Your task to perform on an android device: Go to Yahoo.com Image 0: 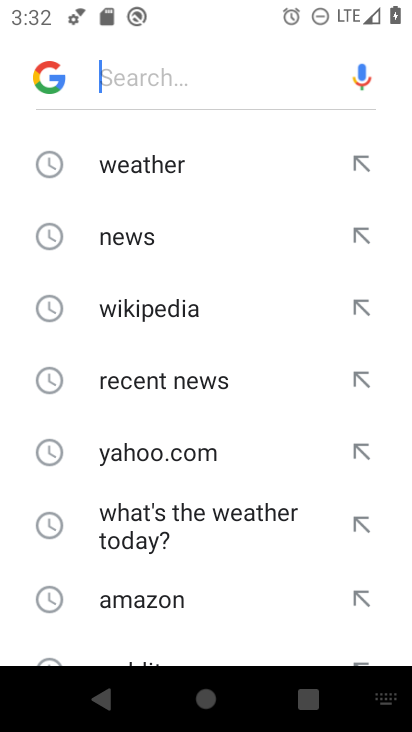
Step 0: press home button
Your task to perform on an android device: Go to Yahoo.com Image 1: 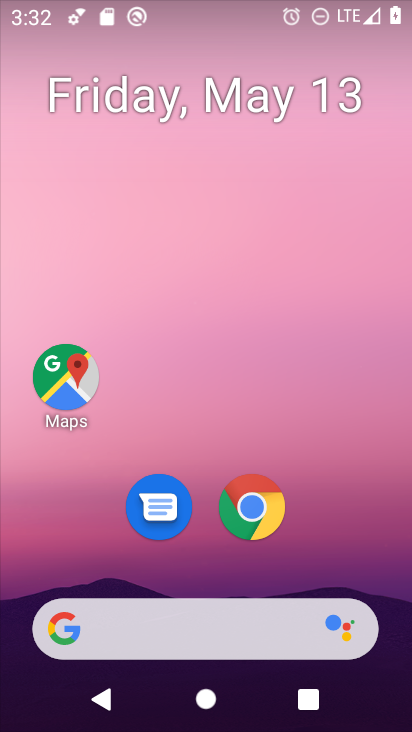
Step 1: drag from (326, 465) to (283, 195)
Your task to perform on an android device: Go to Yahoo.com Image 2: 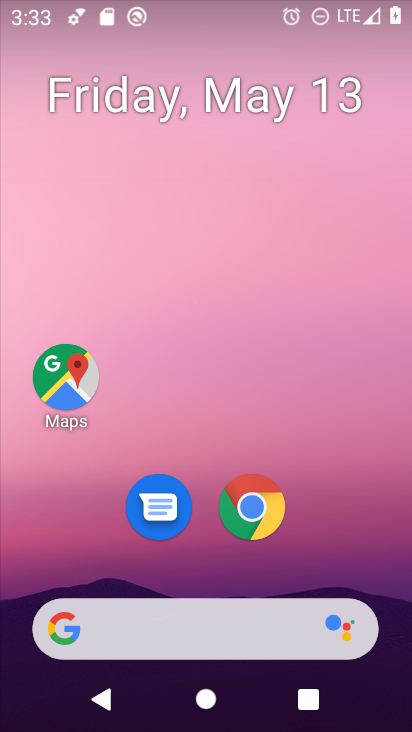
Step 2: click (288, 190)
Your task to perform on an android device: Go to Yahoo.com Image 3: 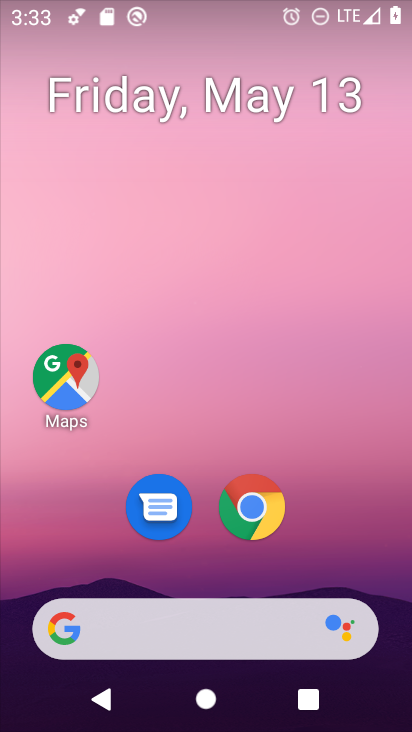
Step 3: click (233, 635)
Your task to perform on an android device: Go to Yahoo.com Image 4: 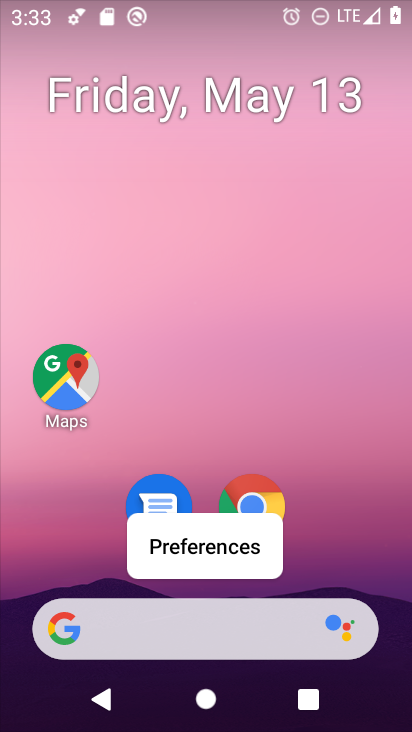
Step 4: click (233, 635)
Your task to perform on an android device: Go to Yahoo.com Image 5: 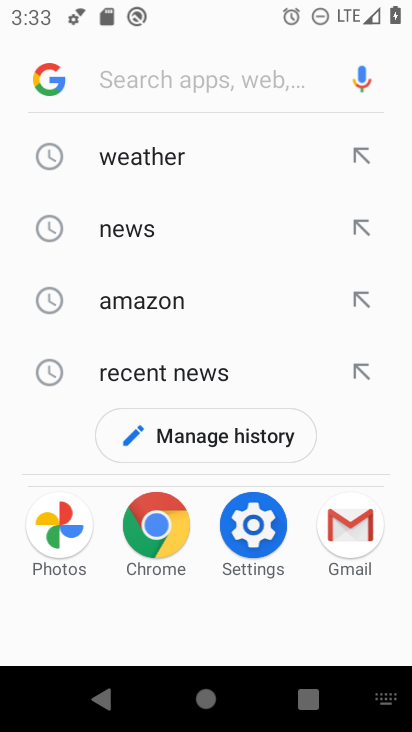
Step 5: click (275, 78)
Your task to perform on an android device: Go to Yahoo.com Image 6: 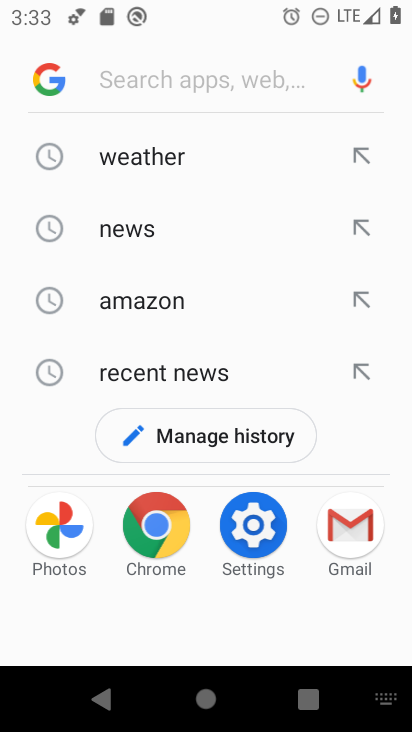
Step 6: click (145, 530)
Your task to perform on an android device: Go to Yahoo.com Image 7: 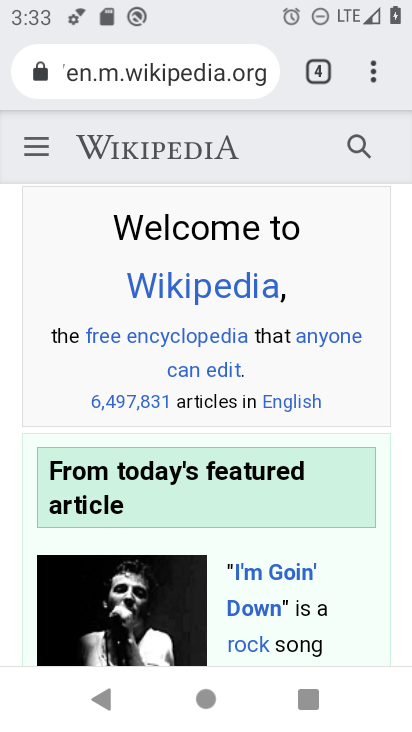
Step 7: click (326, 69)
Your task to perform on an android device: Go to Yahoo.com Image 8: 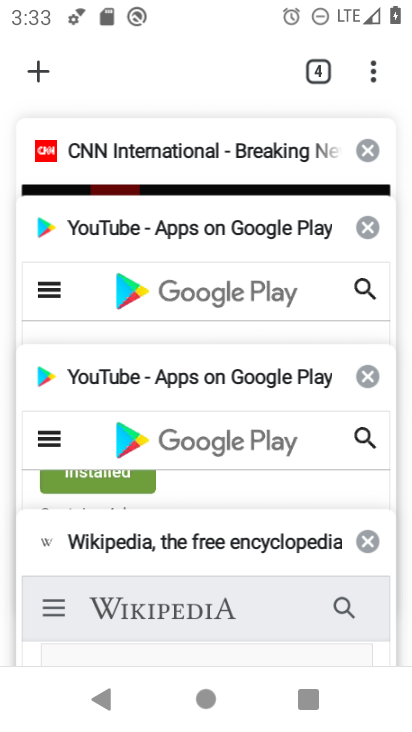
Step 8: drag from (161, 226) to (161, 523)
Your task to perform on an android device: Go to Yahoo.com Image 9: 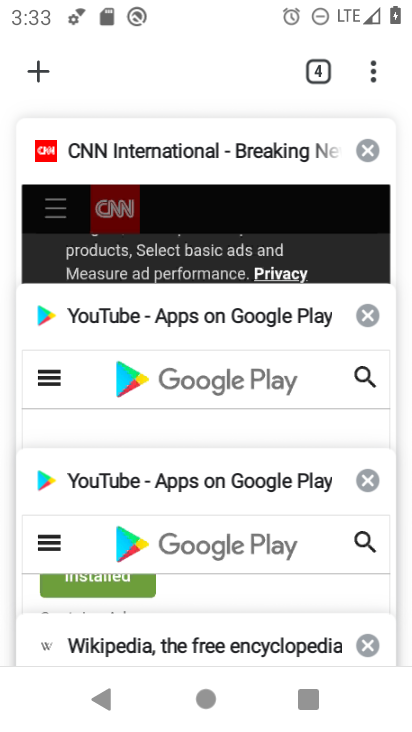
Step 9: drag from (229, 210) to (256, 536)
Your task to perform on an android device: Go to Yahoo.com Image 10: 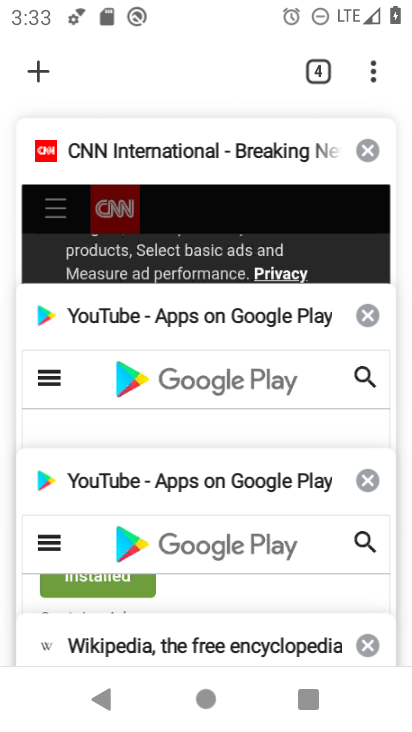
Step 10: drag from (263, 497) to (308, 78)
Your task to perform on an android device: Go to Yahoo.com Image 11: 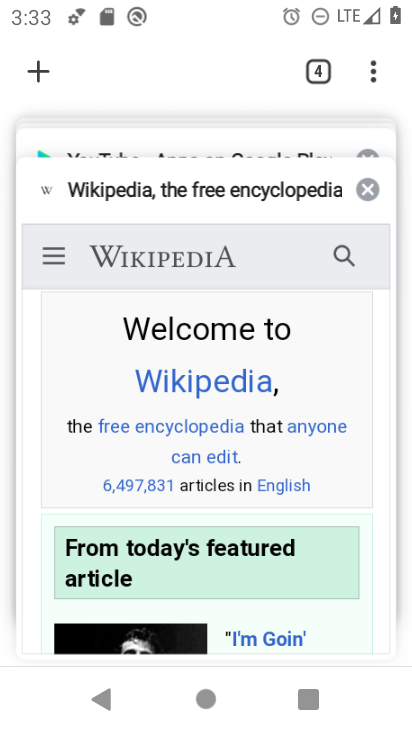
Step 11: drag from (213, 527) to (280, 115)
Your task to perform on an android device: Go to Yahoo.com Image 12: 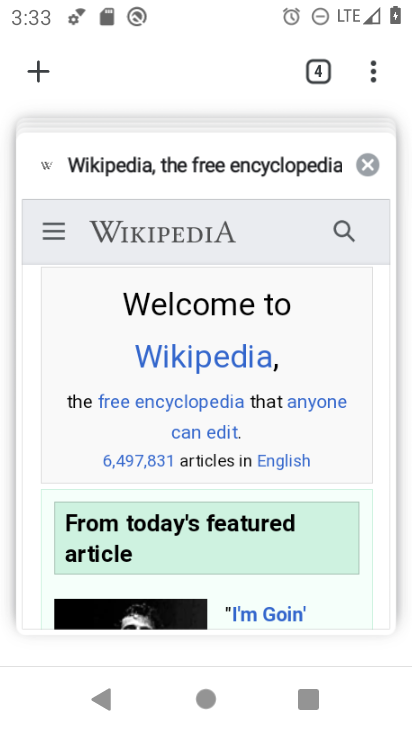
Step 12: drag from (279, 120) to (274, 630)
Your task to perform on an android device: Go to Yahoo.com Image 13: 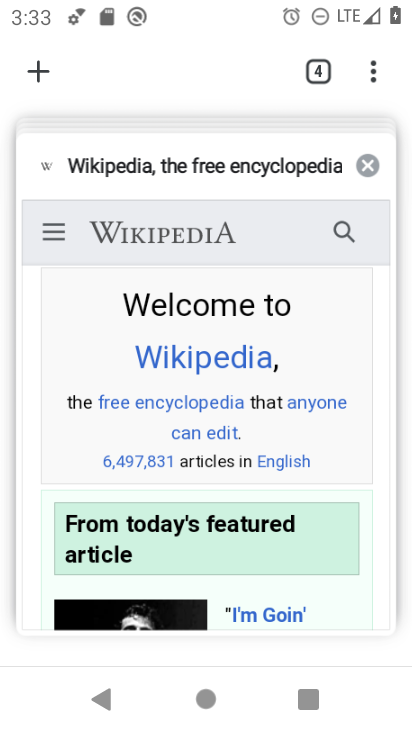
Step 13: click (35, 69)
Your task to perform on an android device: Go to Yahoo.com Image 14: 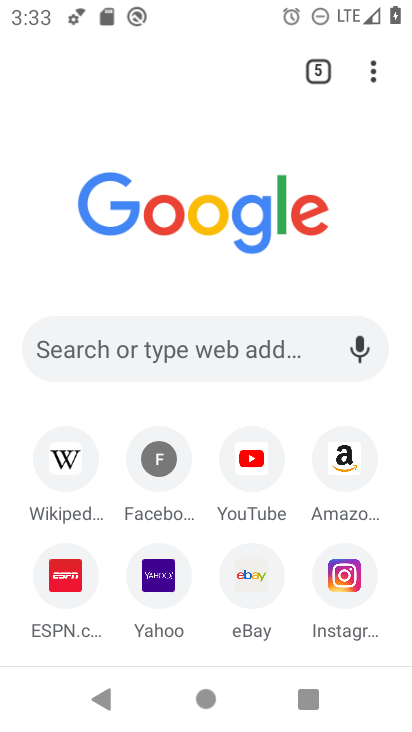
Step 14: click (154, 587)
Your task to perform on an android device: Go to Yahoo.com Image 15: 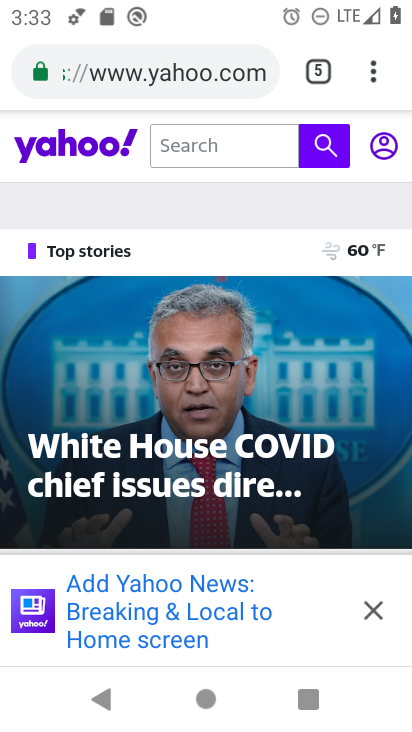
Step 15: task complete